Your task to perform on an android device: find photos in the google photos app Image 0: 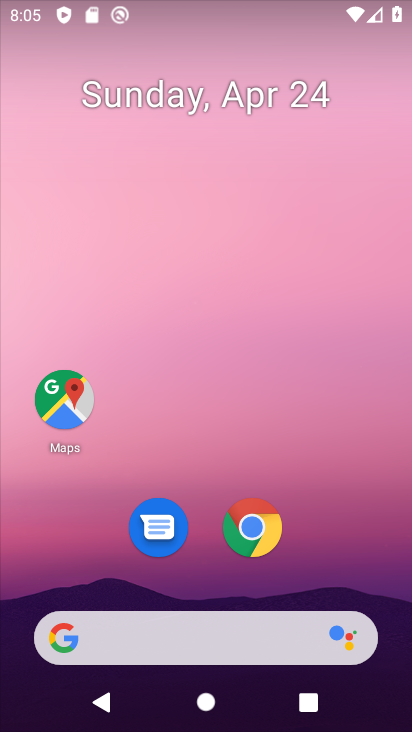
Step 0: click (387, 569)
Your task to perform on an android device: find photos in the google photos app Image 1: 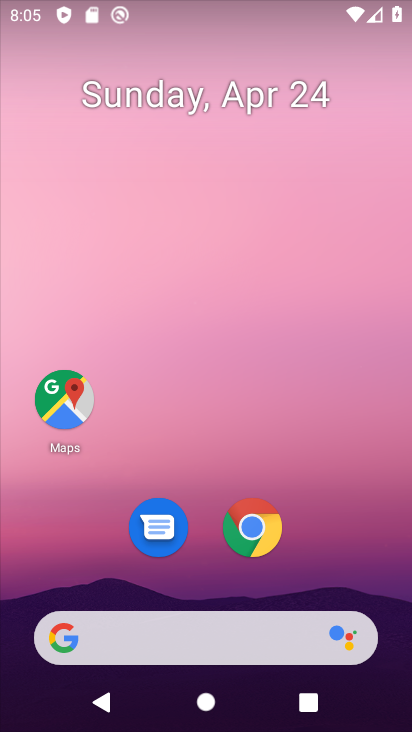
Step 1: click (408, 548)
Your task to perform on an android device: find photos in the google photos app Image 2: 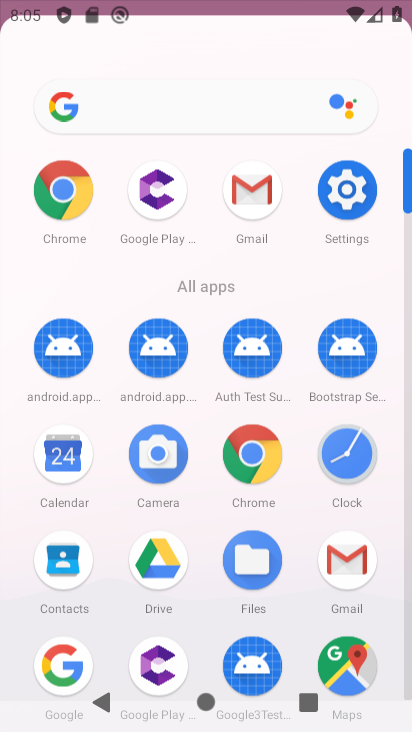
Step 2: drag from (410, 556) to (409, 474)
Your task to perform on an android device: find photos in the google photos app Image 3: 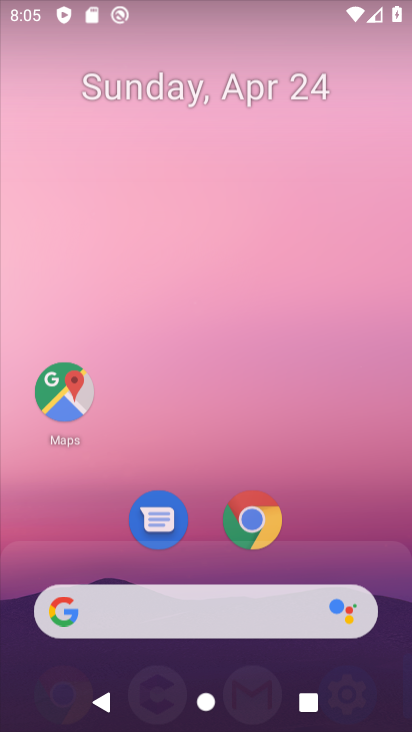
Step 3: drag from (384, 560) to (388, 8)
Your task to perform on an android device: find photos in the google photos app Image 4: 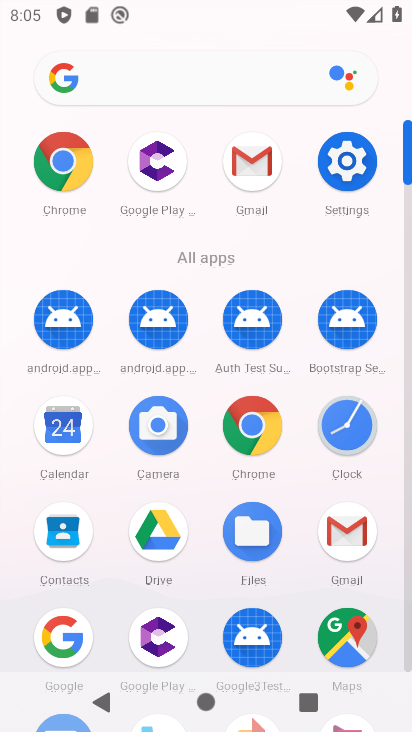
Step 4: click (407, 639)
Your task to perform on an android device: find photos in the google photos app Image 5: 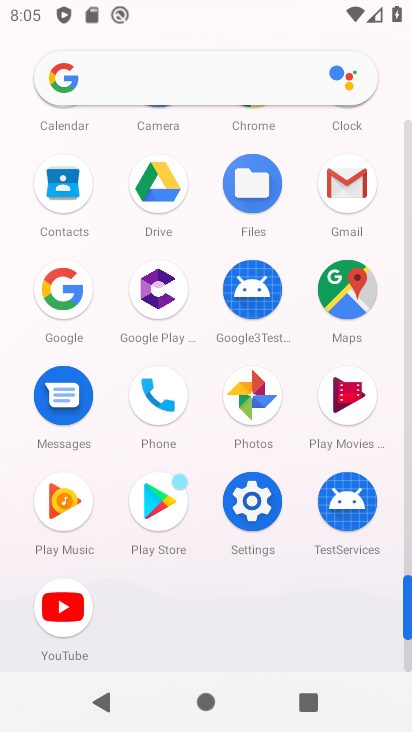
Step 5: click (259, 401)
Your task to perform on an android device: find photos in the google photos app Image 6: 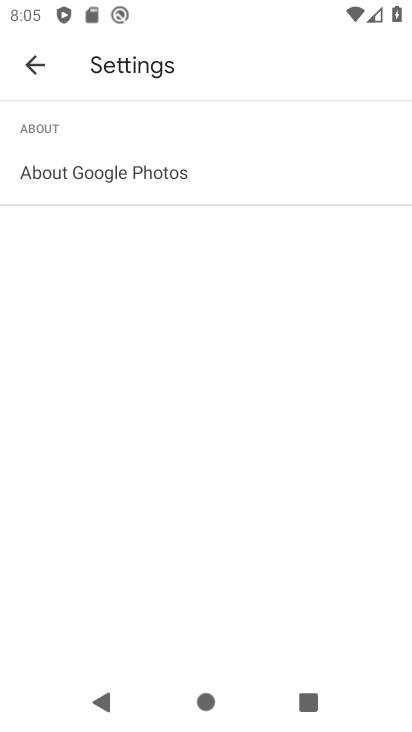
Step 6: click (31, 68)
Your task to perform on an android device: find photos in the google photos app Image 7: 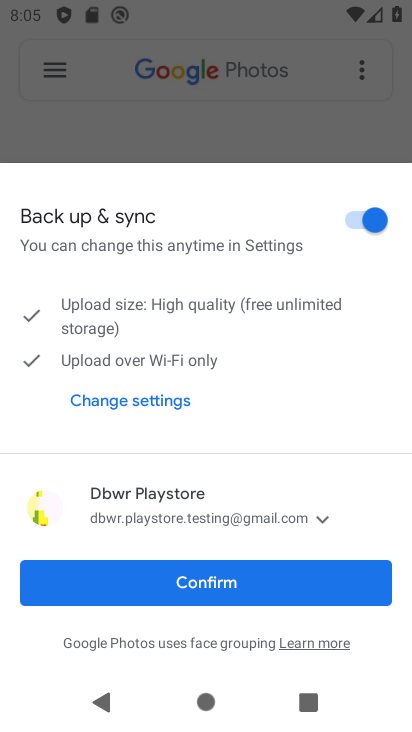
Step 7: click (158, 593)
Your task to perform on an android device: find photos in the google photos app Image 8: 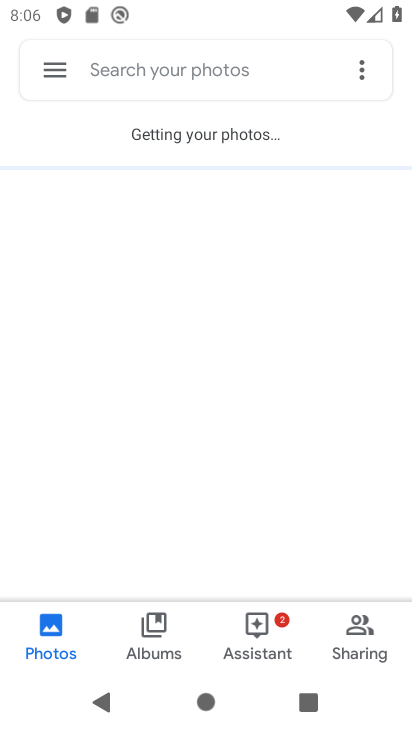
Step 8: click (50, 615)
Your task to perform on an android device: find photos in the google photos app Image 9: 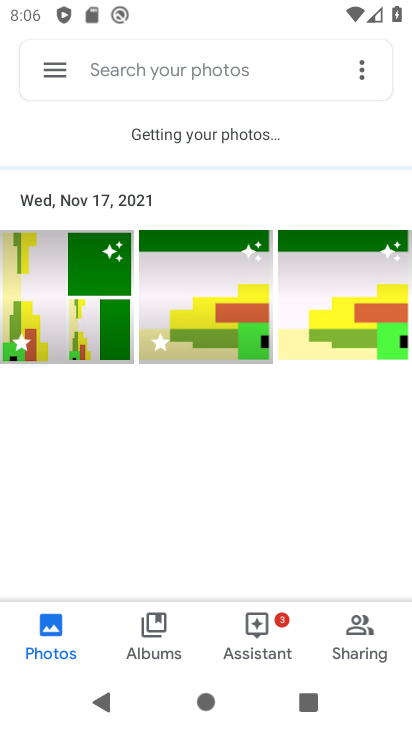
Step 9: task complete